Your task to perform on an android device: Clear the cart on target. Search for razer thresher on target, select the first entry, add it to the cart, then select checkout. Image 0: 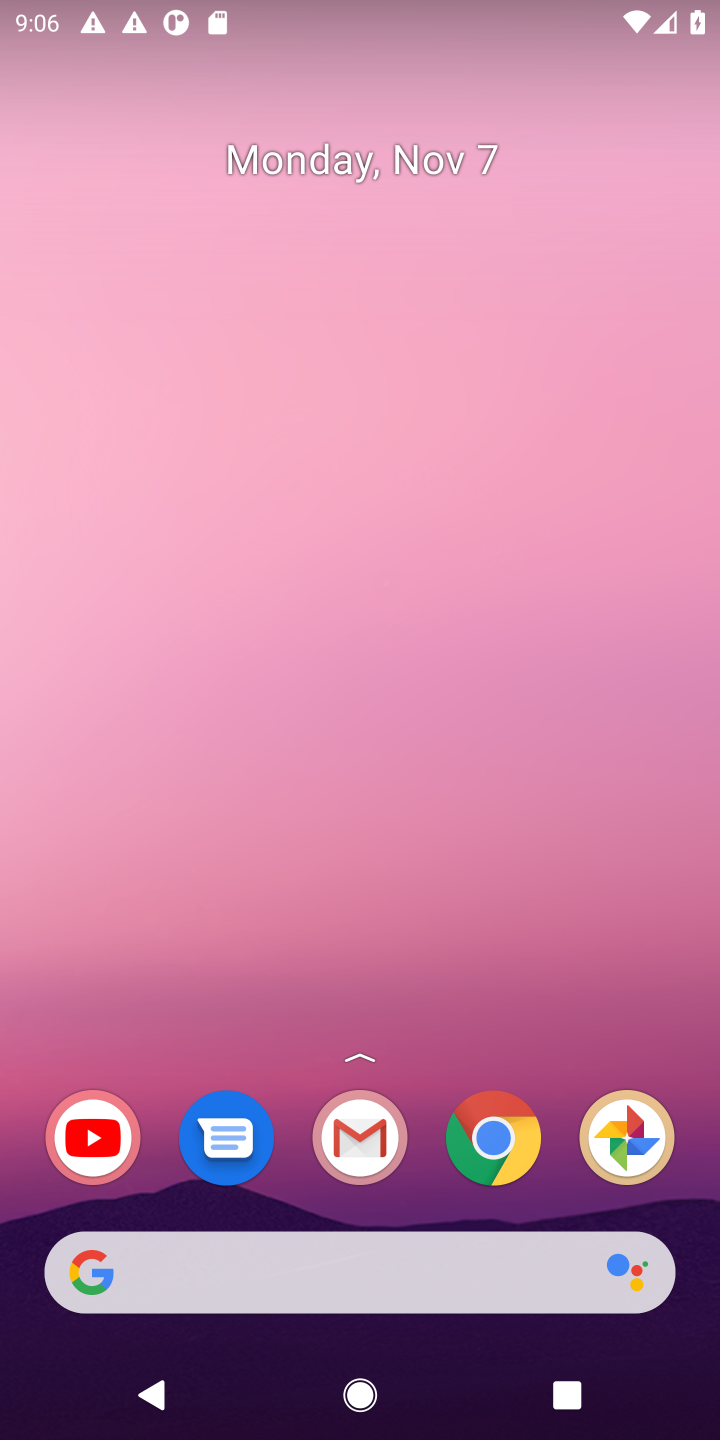
Step 0: click (480, 1135)
Your task to perform on an android device: Clear the cart on target. Search for razer thresher on target, select the first entry, add it to the cart, then select checkout. Image 1: 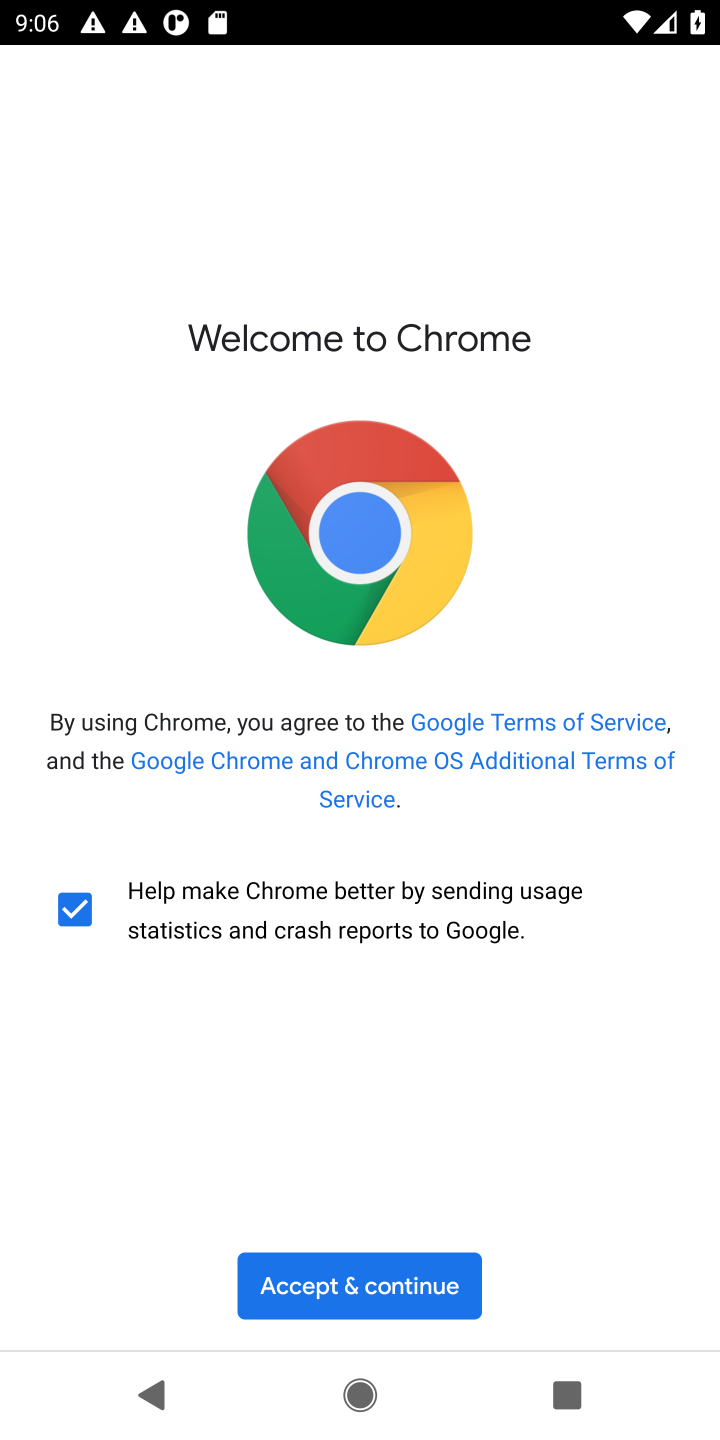
Step 1: click (425, 1301)
Your task to perform on an android device: Clear the cart on target. Search for razer thresher on target, select the first entry, add it to the cart, then select checkout. Image 2: 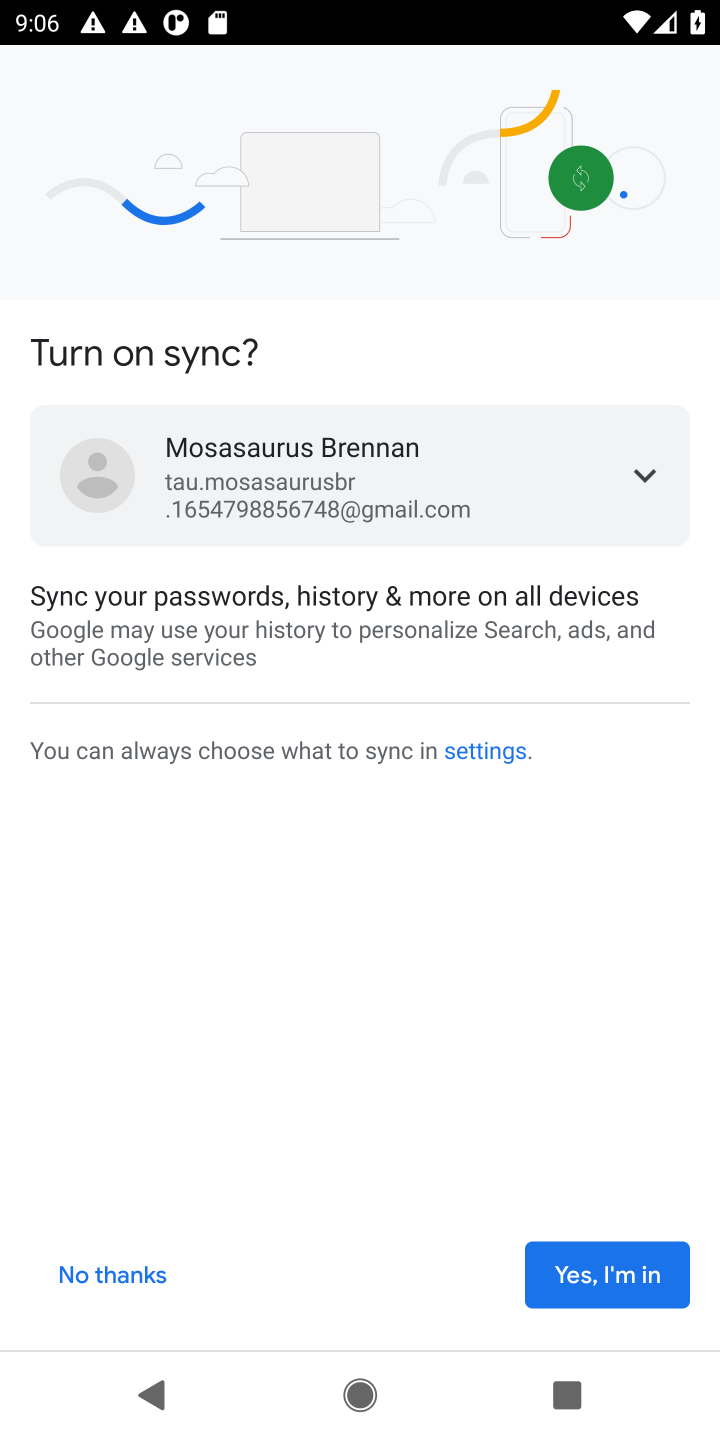
Step 2: click (616, 1270)
Your task to perform on an android device: Clear the cart on target. Search for razer thresher on target, select the first entry, add it to the cart, then select checkout. Image 3: 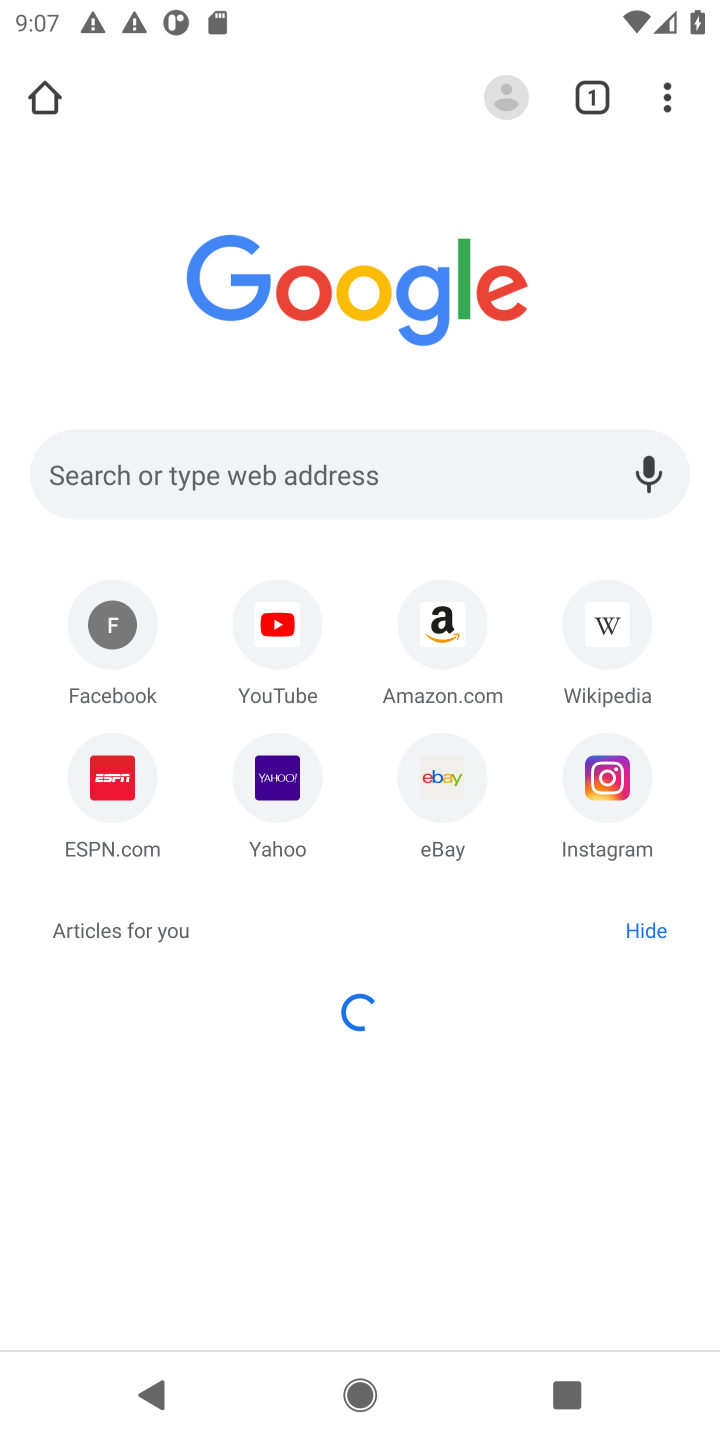
Step 3: click (288, 482)
Your task to perform on an android device: Clear the cart on target. Search for razer thresher on target, select the first entry, add it to the cart, then select checkout. Image 4: 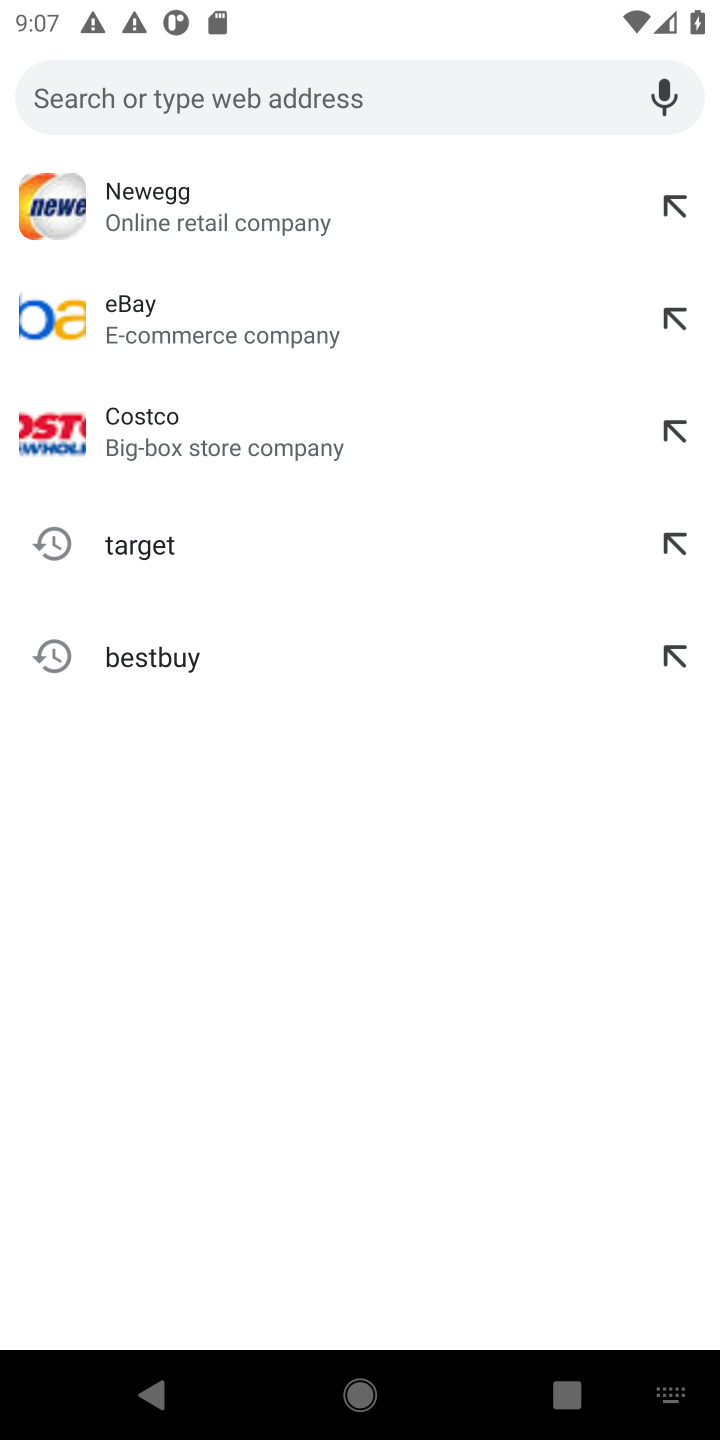
Step 4: click (153, 551)
Your task to perform on an android device: Clear the cart on target. Search for razer thresher on target, select the first entry, add it to the cart, then select checkout. Image 5: 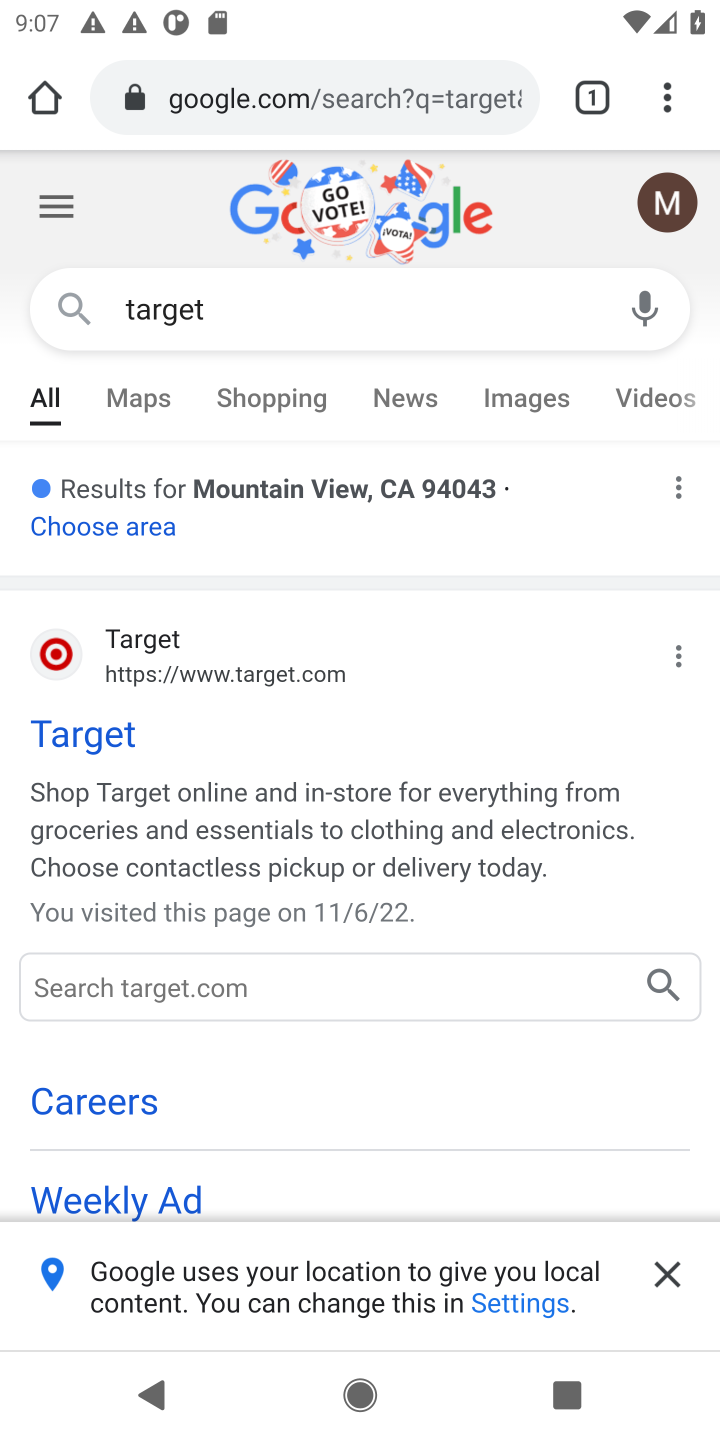
Step 5: click (668, 1274)
Your task to perform on an android device: Clear the cart on target. Search for razer thresher on target, select the first entry, add it to the cart, then select checkout. Image 6: 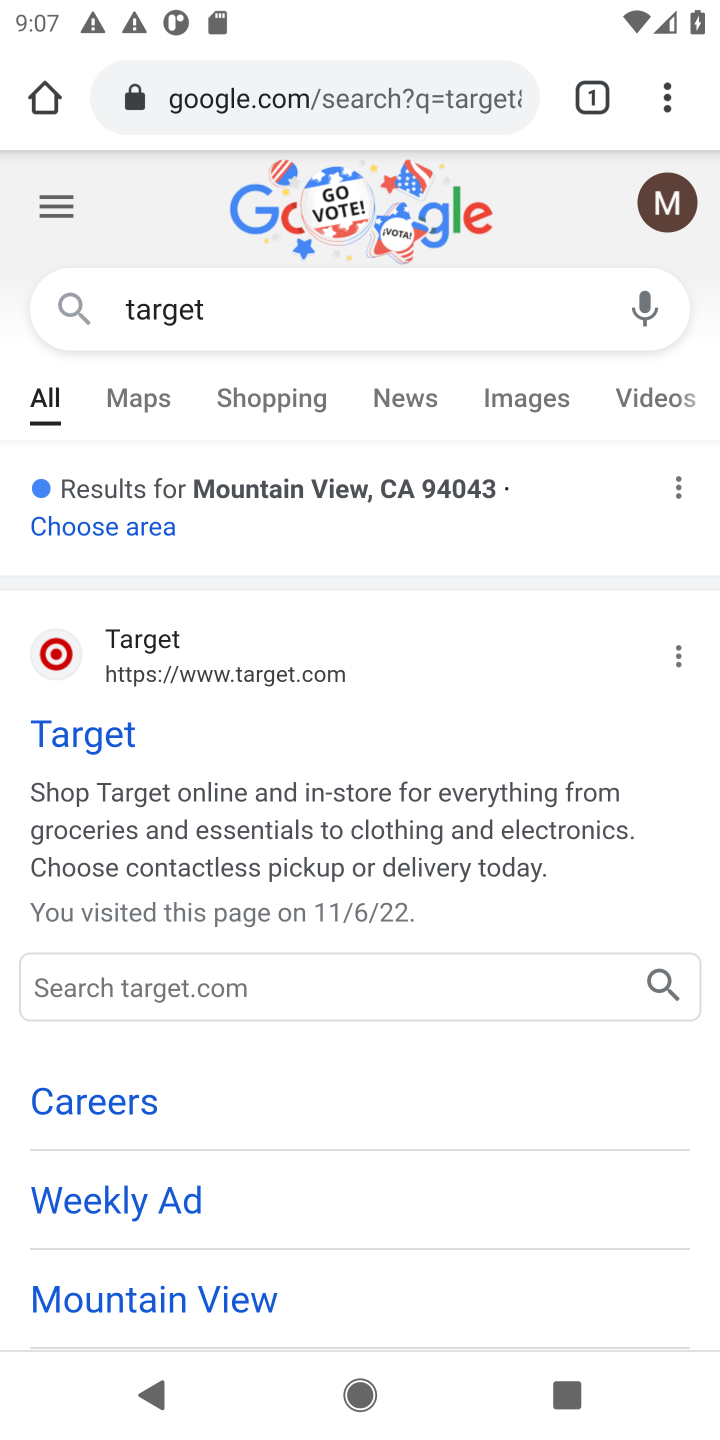
Step 6: click (250, 993)
Your task to perform on an android device: Clear the cart on target. Search for razer thresher on target, select the first entry, add it to the cart, then select checkout. Image 7: 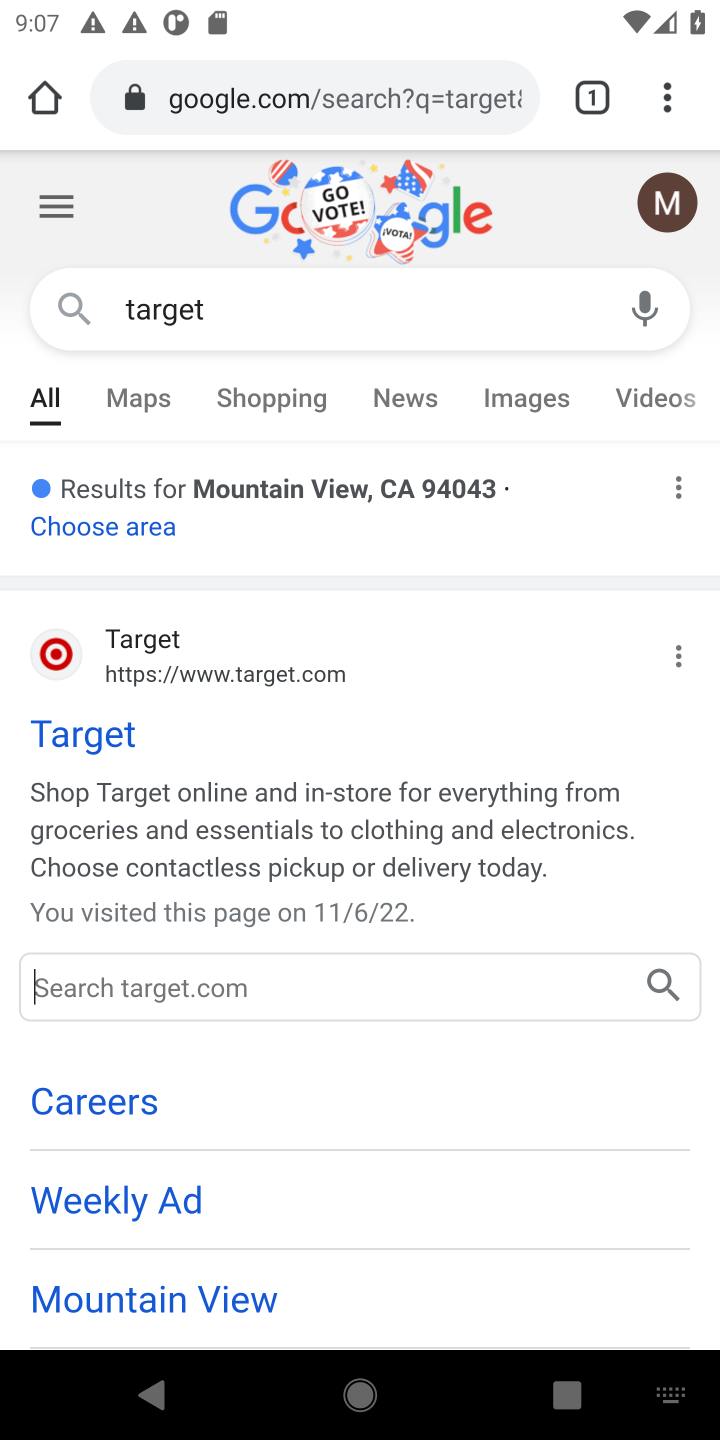
Step 7: type "razer thresher"
Your task to perform on an android device: Clear the cart on target. Search for razer thresher on target, select the first entry, add it to the cart, then select checkout. Image 8: 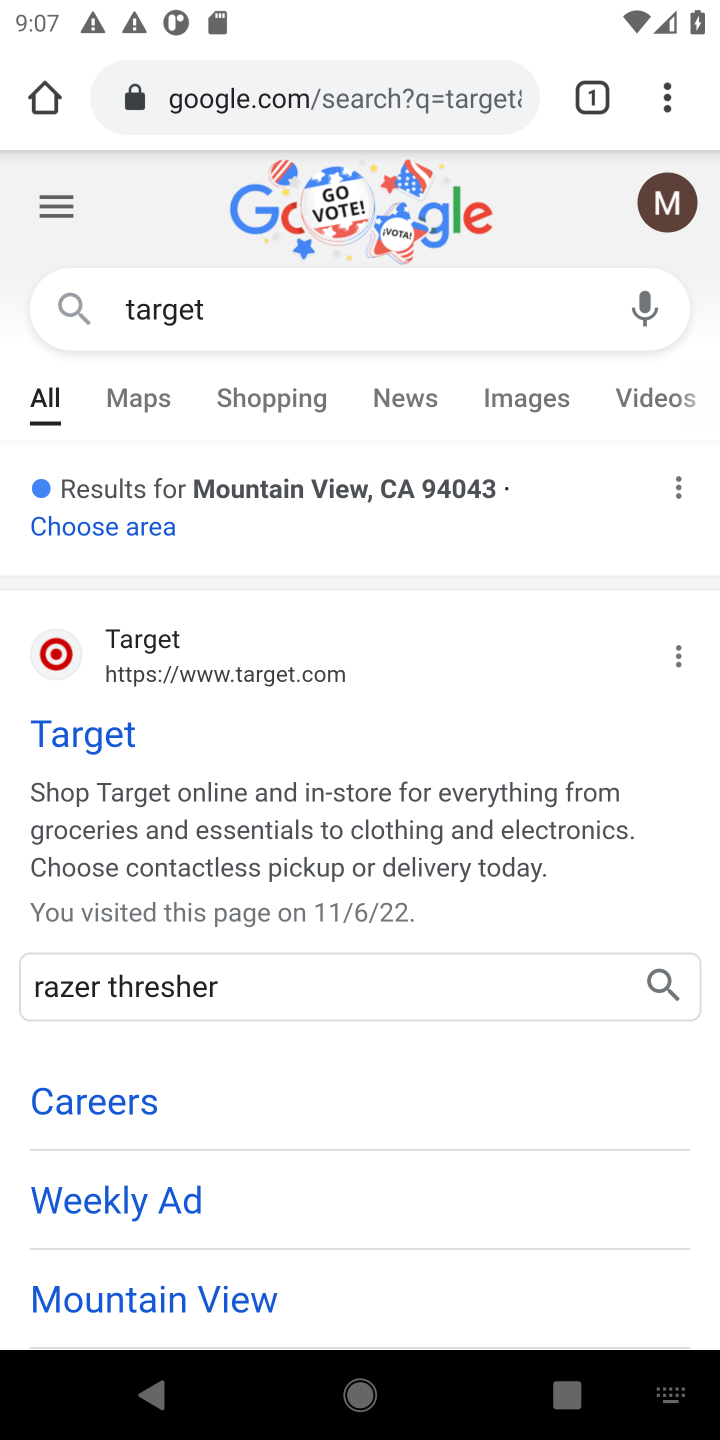
Step 8: click (652, 989)
Your task to perform on an android device: Clear the cart on target. Search for razer thresher on target, select the first entry, add it to the cart, then select checkout. Image 9: 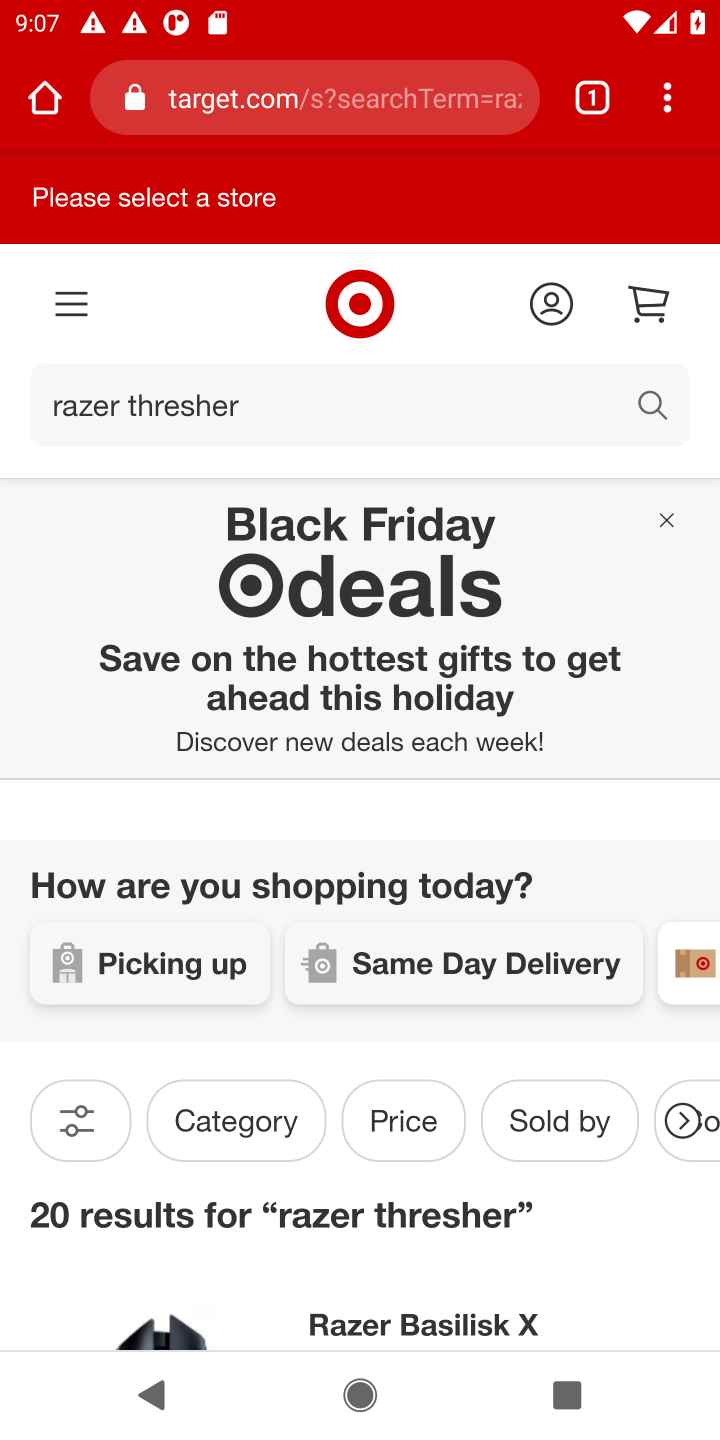
Step 9: drag from (552, 1092) to (543, 477)
Your task to perform on an android device: Clear the cart on target. Search for razer thresher on target, select the first entry, add it to the cart, then select checkout. Image 10: 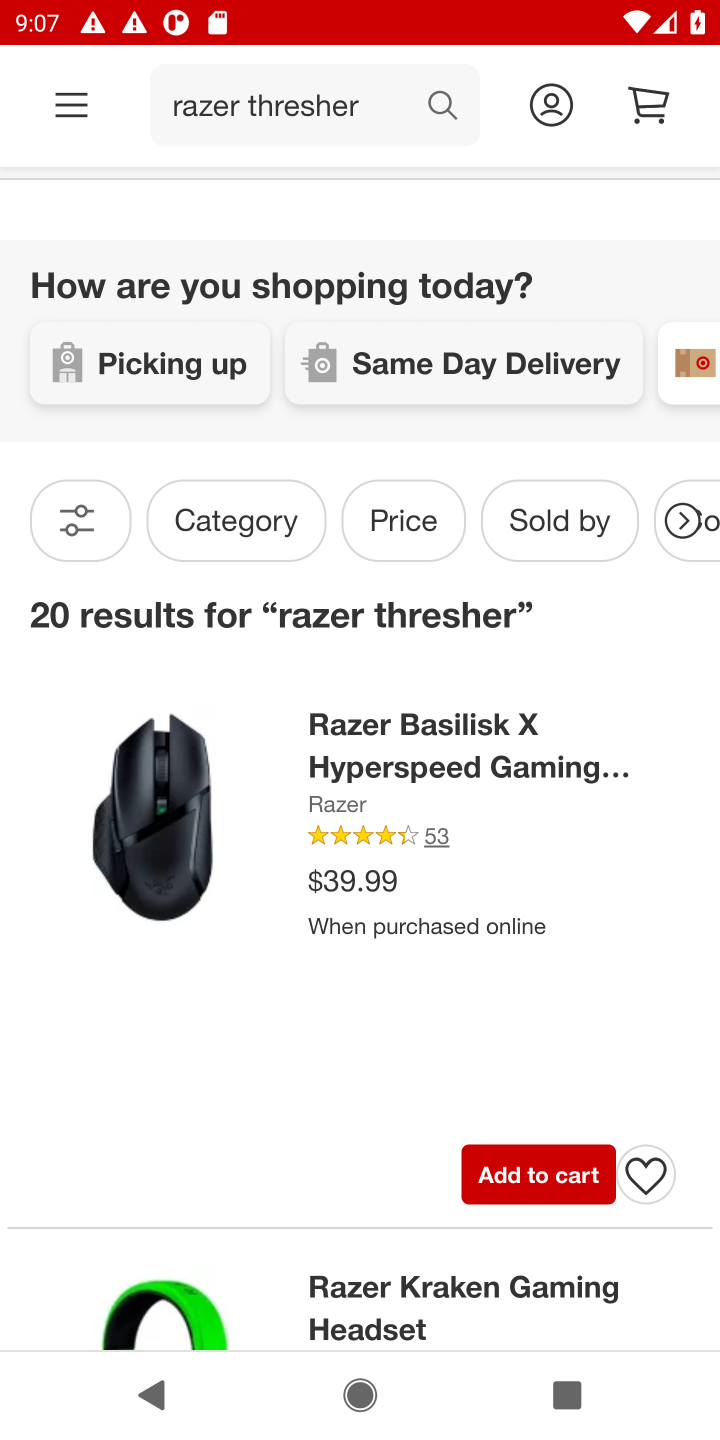
Step 10: click (530, 1187)
Your task to perform on an android device: Clear the cart on target. Search for razer thresher on target, select the first entry, add it to the cart, then select checkout. Image 11: 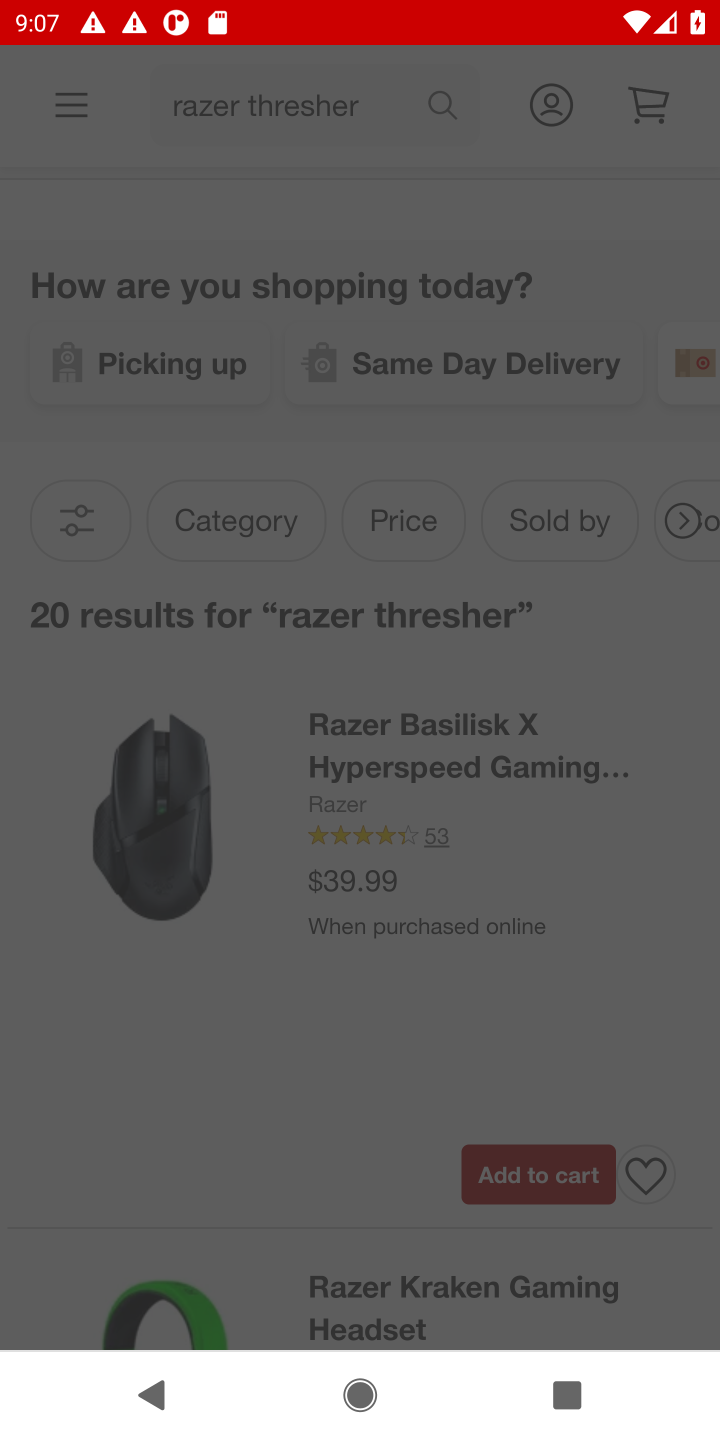
Step 11: task complete